Your task to perform on an android device: Open Maps and search for coffee Image 0: 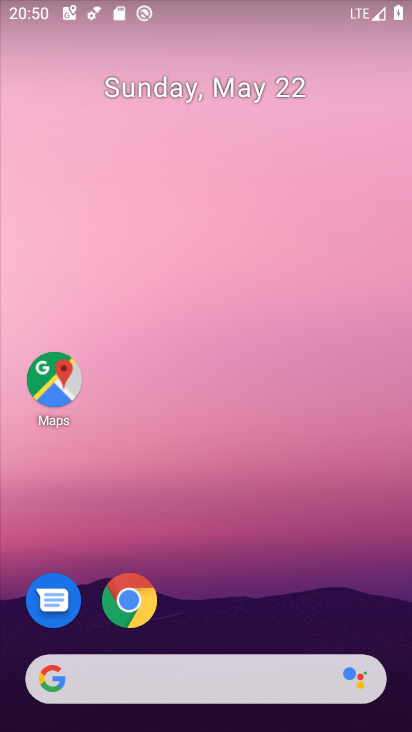
Step 0: drag from (207, 666) to (205, 214)
Your task to perform on an android device: Open Maps and search for coffee Image 1: 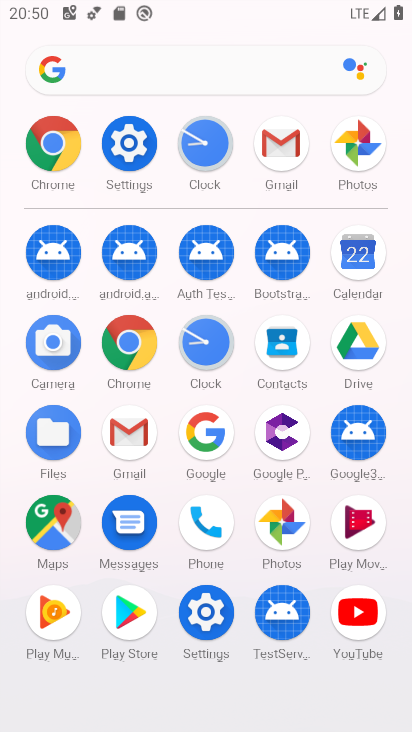
Step 1: click (42, 513)
Your task to perform on an android device: Open Maps and search for coffee Image 2: 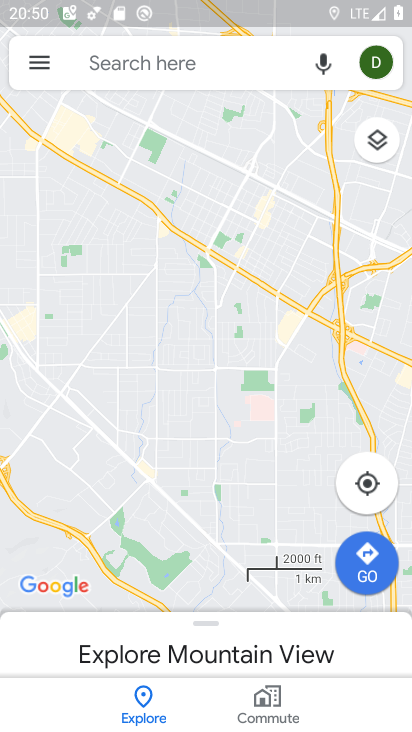
Step 2: click (155, 51)
Your task to perform on an android device: Open Maps and search for coffee Image 3: 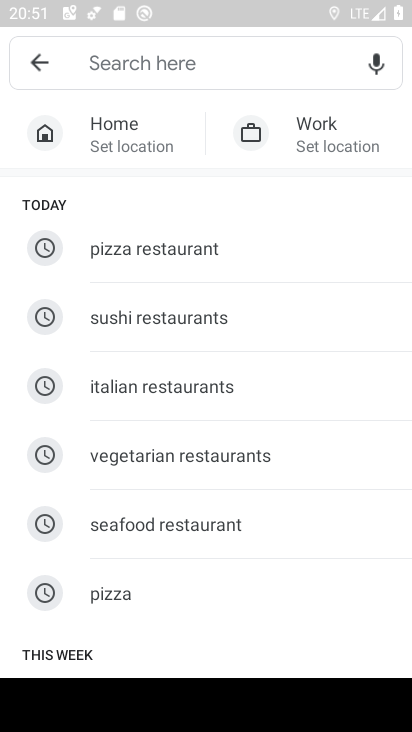
Step 3: type "coffee"
Your task to perform on an android device: Open Maps and search for coffee Image 4: 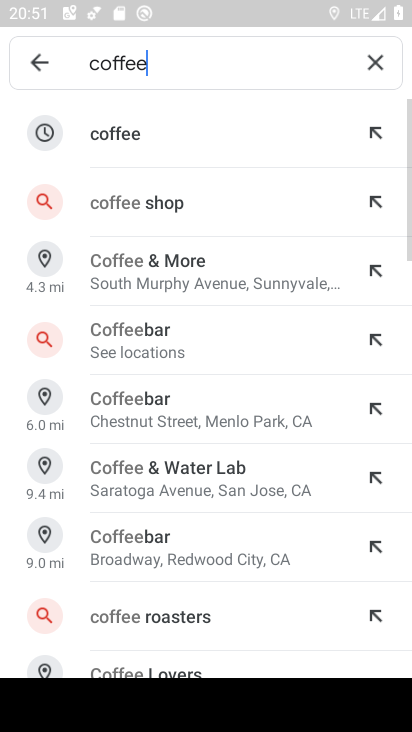
Step 4: click (102, 140)
Your task to perform on an android device: Open Maps and search for coffee Image 5: 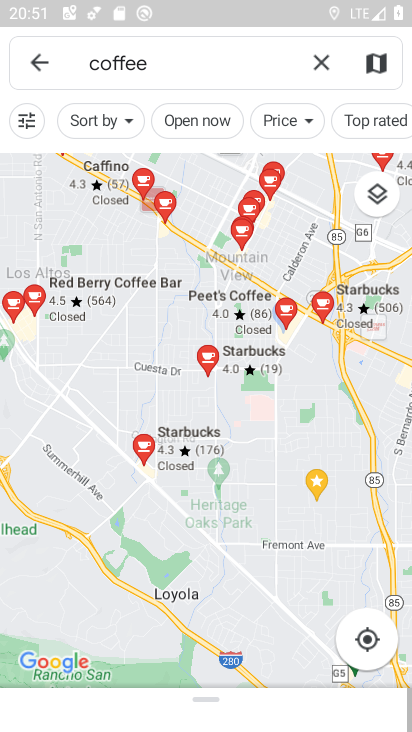
Step 5: task complete